Your task to perform on an android device: change keyboard looks Image 0: 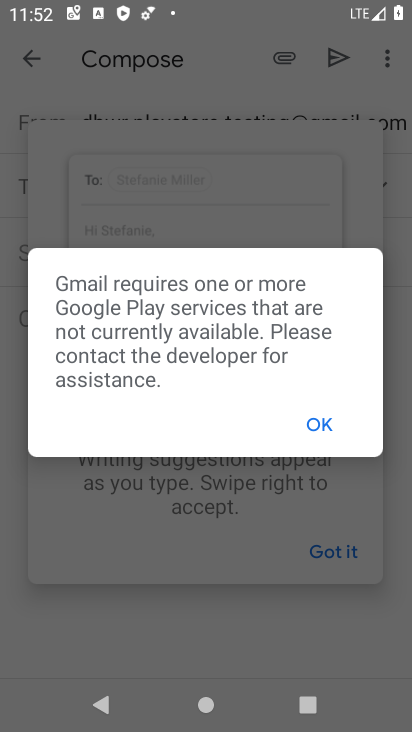
Step 0: press home button
Your task to perform on an android device: change keyboard looks Image 1: 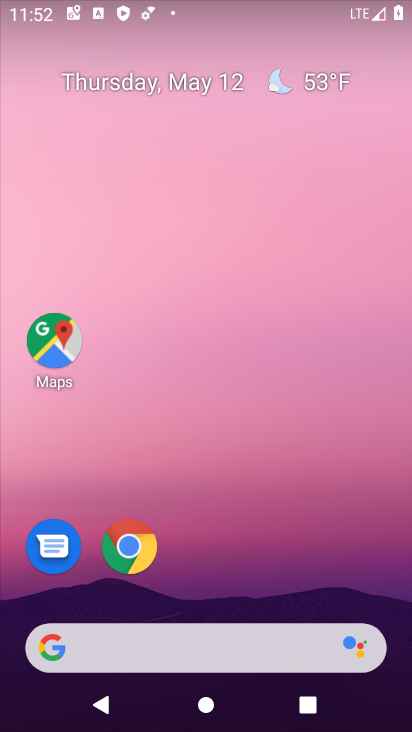
Step 1: drag from (157, 674) to (335, 217)
Your task to perform on an android device: change keyboard looks Image 2: 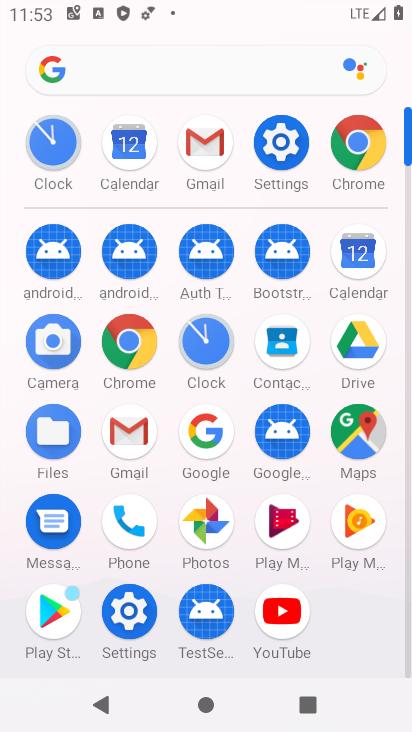
Step 2: click (120, 606)
Your task to perform on an android device: change keyboard looks Image 3: 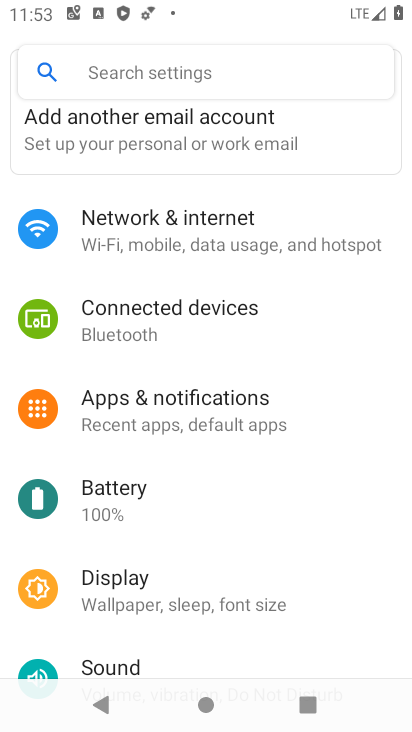
Step 3: click (208, 75)
Your task to perform on an android device: change keyboard looks Image 4: 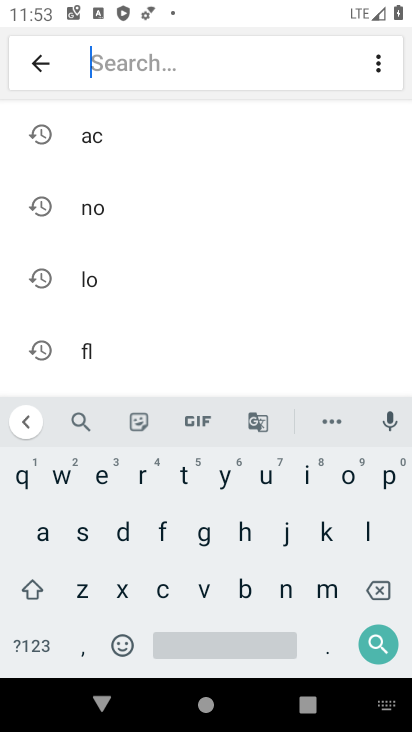
Step 4: click (320, 524)
Your task to perform on an android device: change keyboard looks Image 5: 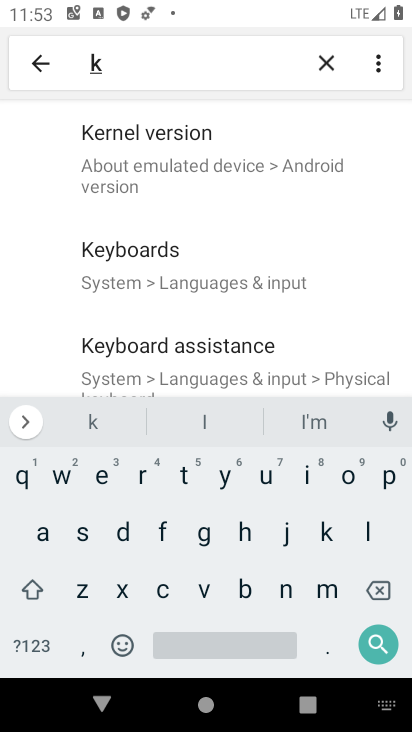
Step 5: click (184, 246)
Your task to perform on an android device: change keyboard looks Image 6: 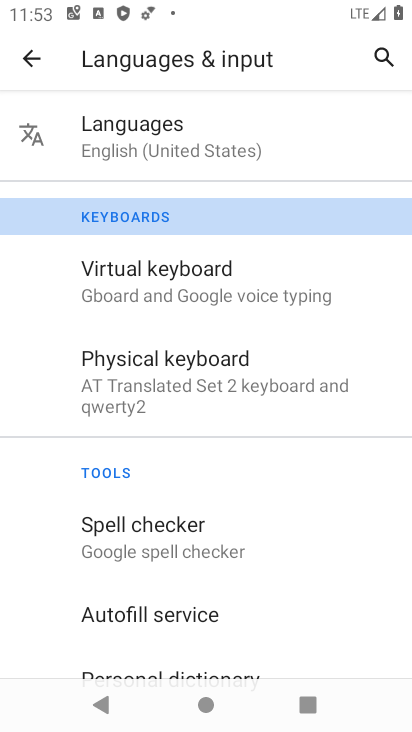
Step 6: click (181, 265)
Your task to perform on an android device: change keyboard looks Image 7: 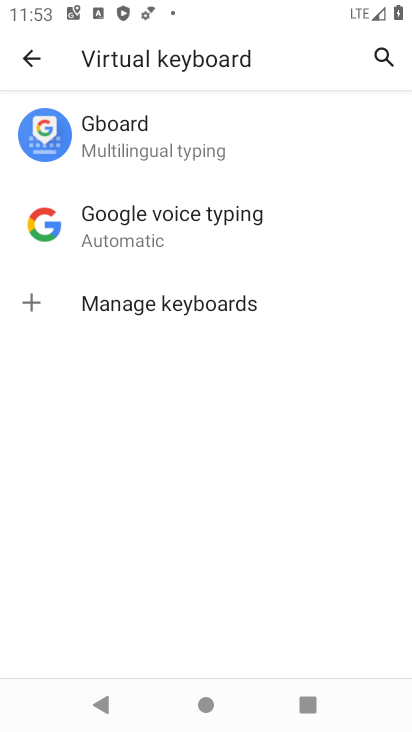
Step 7: click (162, 172)
Your task to perform on an android device: change keyboard looks Image 8: 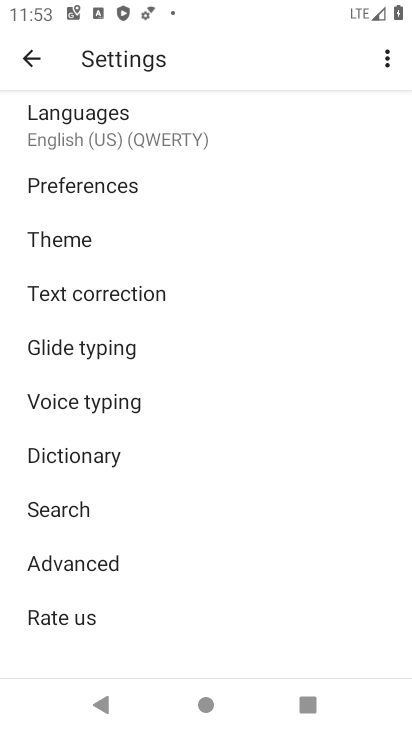
Step 8: click (89, 239)
Your task to perform on an android device: change keyboard looks Image 9: 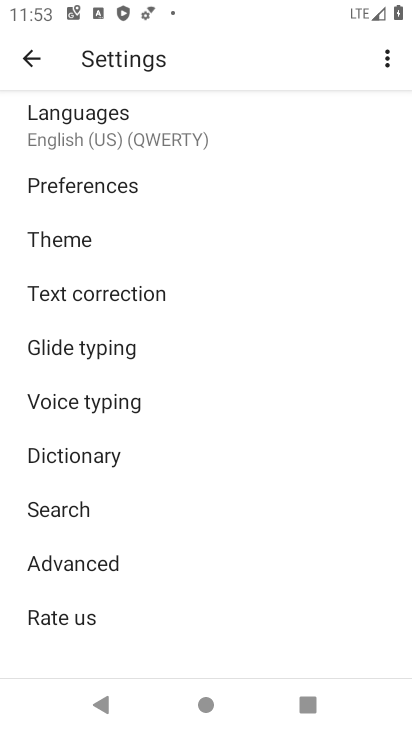
Step 9: click (80, 247)
Your task to perform on an android device: change keyboard looks Image 10: 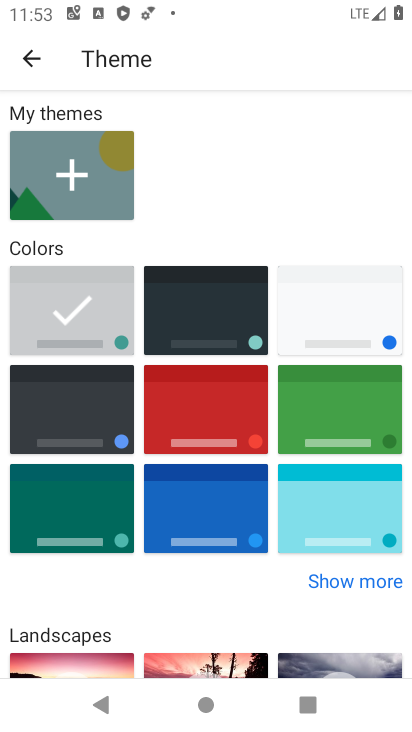
Step 10: click (62, 501)
Your task to perform on an android device: change keyboard looks Image 11: 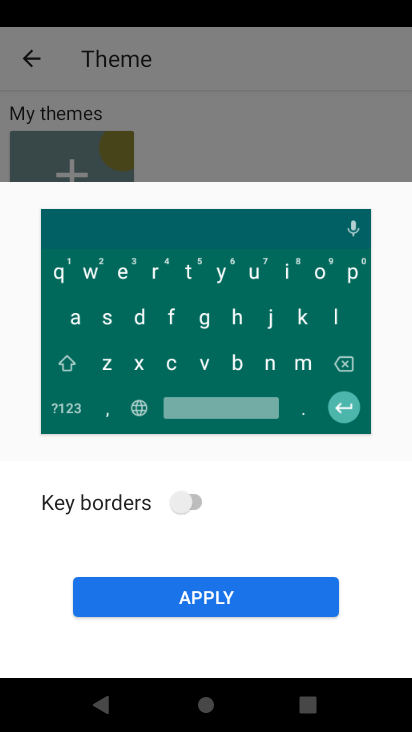
Step 11: click (193, 499)
Your task to perform on an android device: change keyboard looks Image 12: 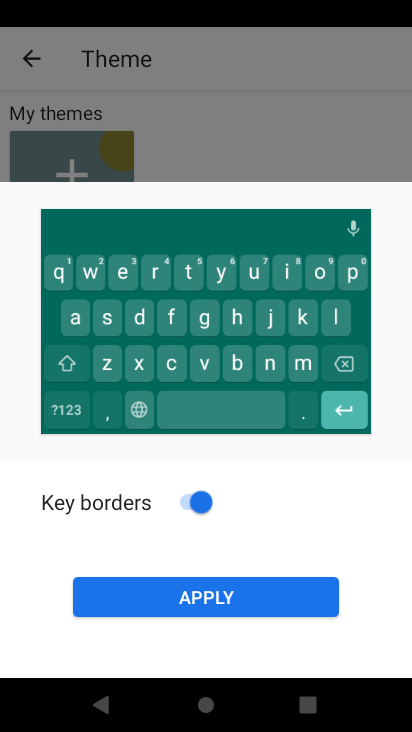
Step 12: click (176, 595)
Your task to perform on an android device: change keyboard looks Image 13: 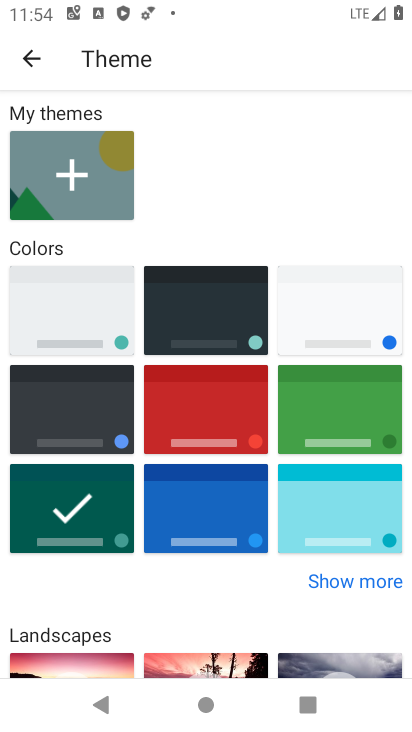
Step 13: task complete